Your task to perform on an android device: all mails in gmail Image 0: 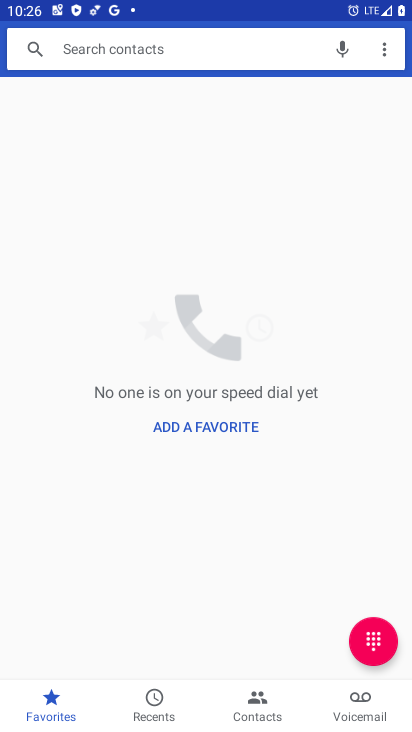
Step 0: press home button
Your task to perform on an android device: all mails in gmail Image 1: 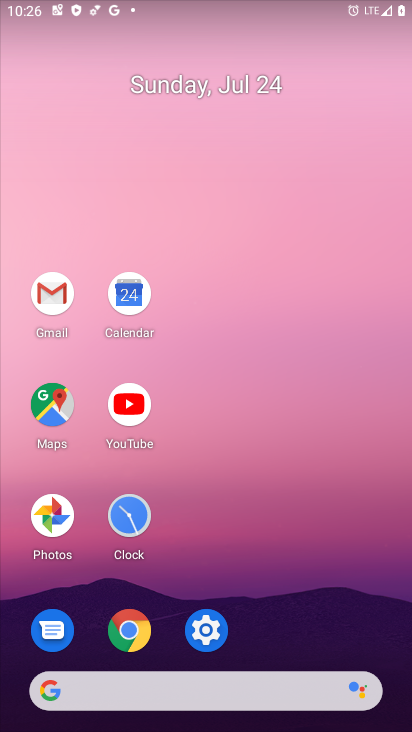
Step 1: click (50, 297)
Your task to perform on an android device: all mails in gmail Image 2: 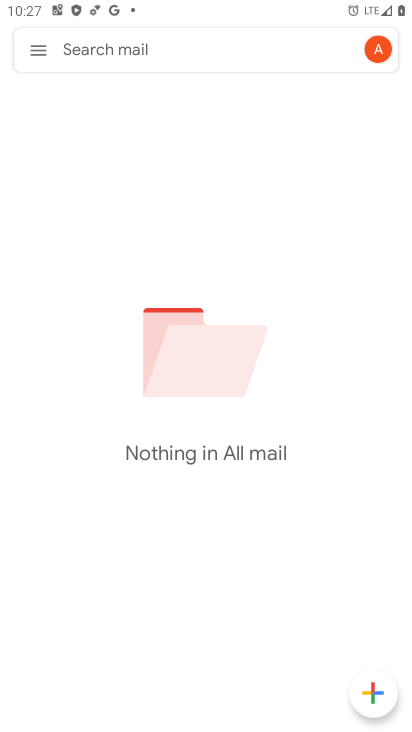
Step 2: task complete